Your task to perform on an android device: allow notifications from all sites in the chrome app Image 0: 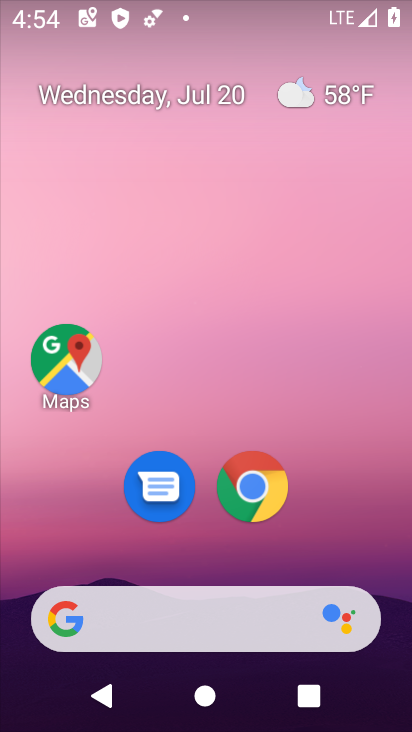
Step 0: click (247, 491)
Your task to perform on an android device: allow notifications from all sites in the chrome app Image 1: 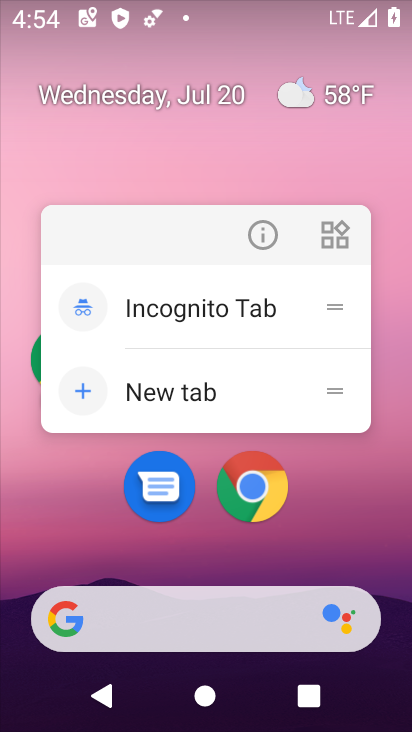
Step 1: click (232, 484)
Your task to perform on an android device: allow notifications from all sites in the chrome app Image 2: 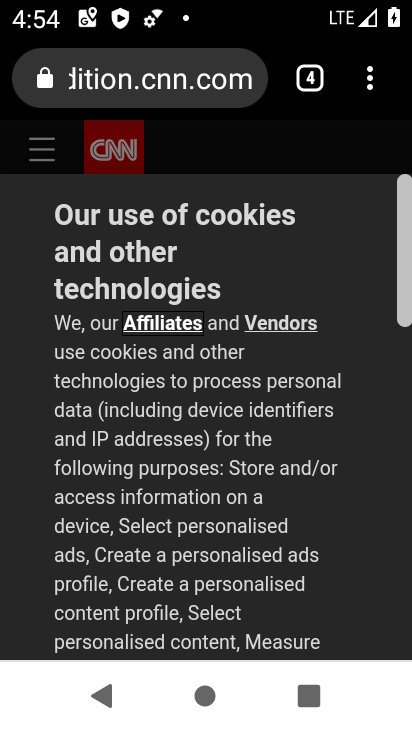
Step 2: drag from (374, 83) to (104, 544)
Your task to perform on an android device: allow notifications from all sites in the chrome app Image 3: 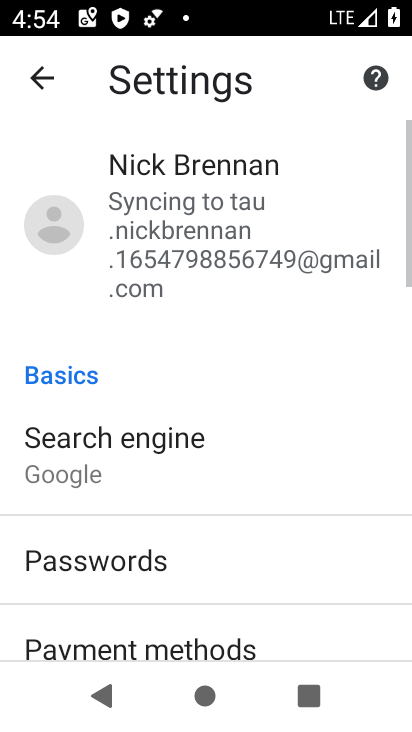
Step 3: drag from (110, 630) to (190, 177)
Your task to perform on an android device: allow notifications from all sites in the chrome app Image 4: 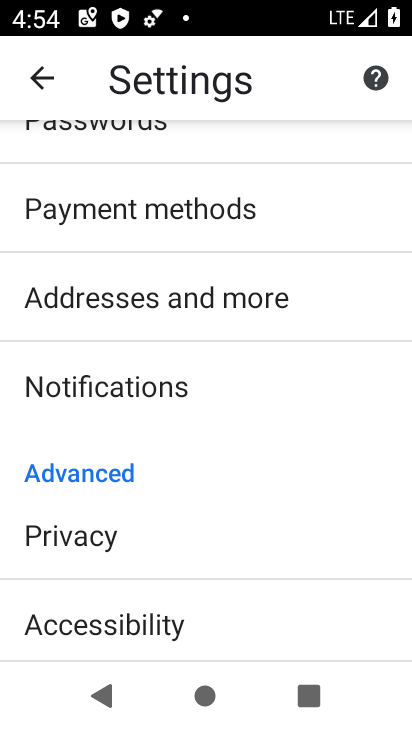
Step 4: click (122, 383)
Your task to perform on an android device: allow notifications from all sites in the chrome app Image 5: 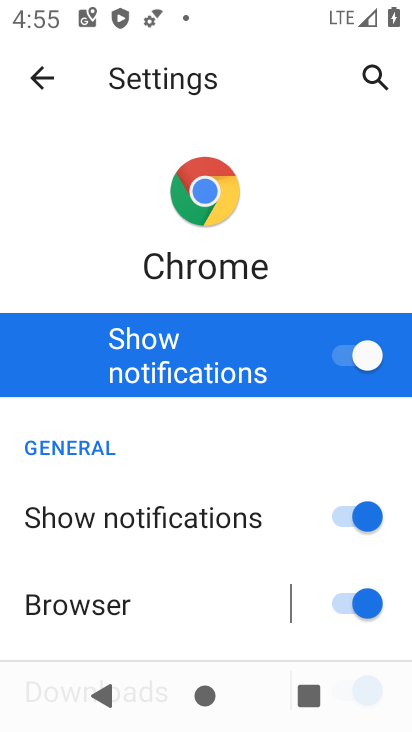
Step 5: task complete